Your task to perform on an android device: Open Amazon Image 0: 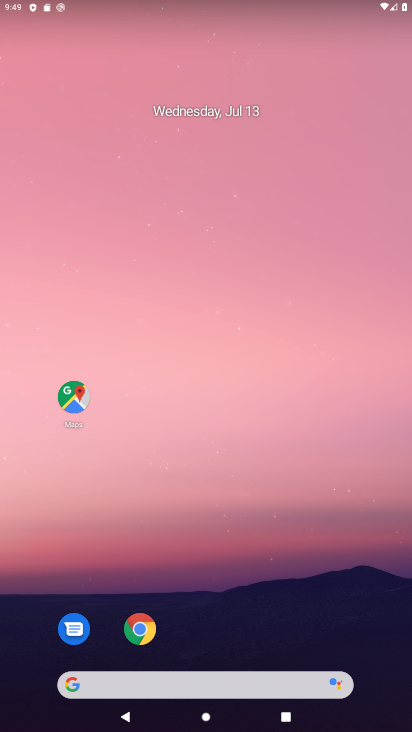
Step 0: press home button
Your task to perform on an android device: Open Amazon Image 1: 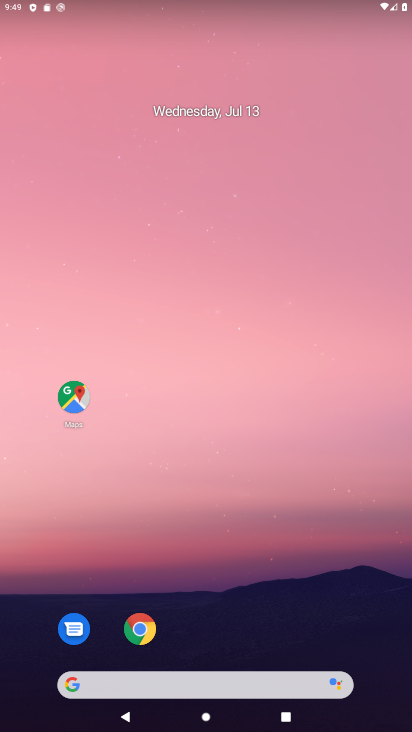
Step 1: click (136, 624)
Your task to perform on an android device: Open Amazon Image 2: 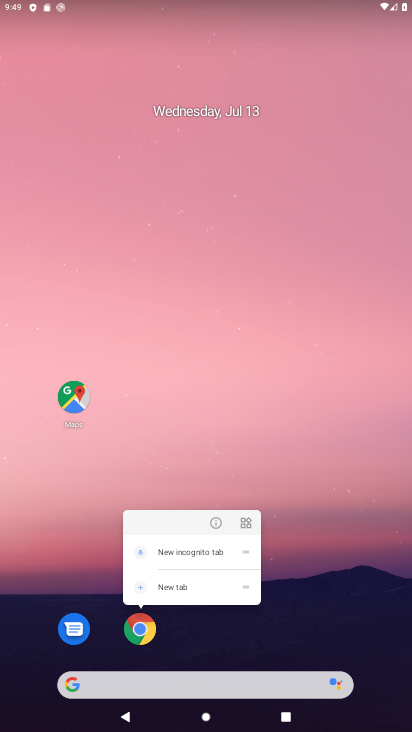
Step 2: click (138, 629)
Your task to perform on an android device: Open Amazon Image 3: 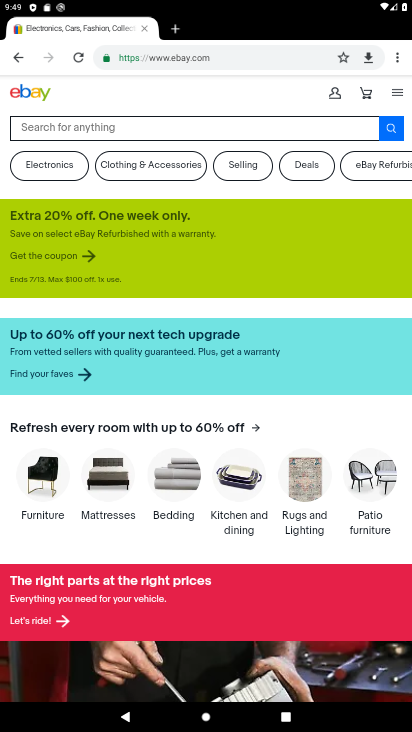
Step 3: click (171, 30)
Your task to perform on an android device: Open Amazon Image 4: 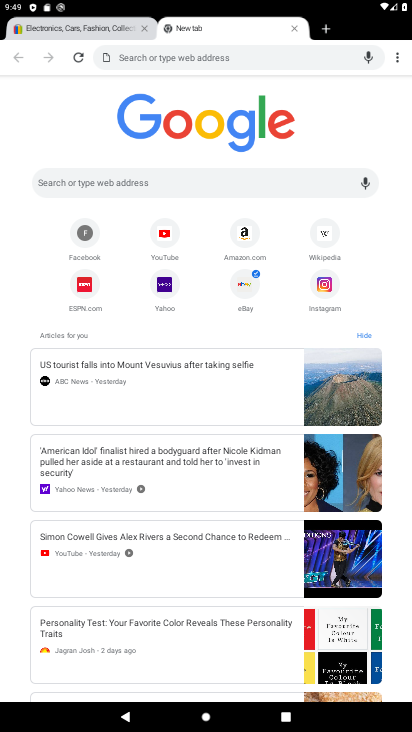
Step 4: click (243, 228)
Your task to perform on an android device: Open Amazon Image 5: 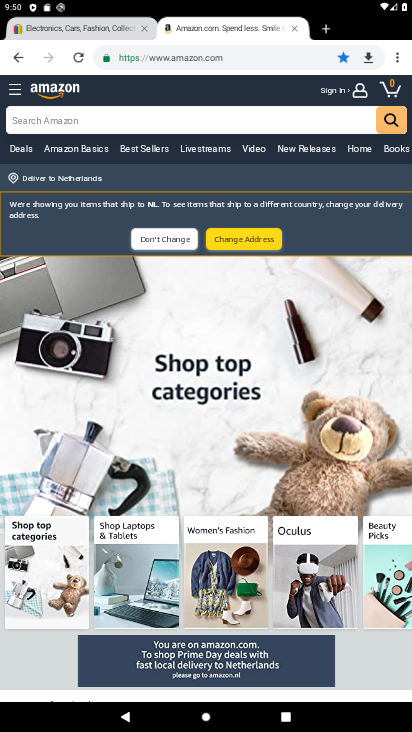
Step 5: task complete